Your task to perform on an android device: What's on the menu at Panera? Image 0: 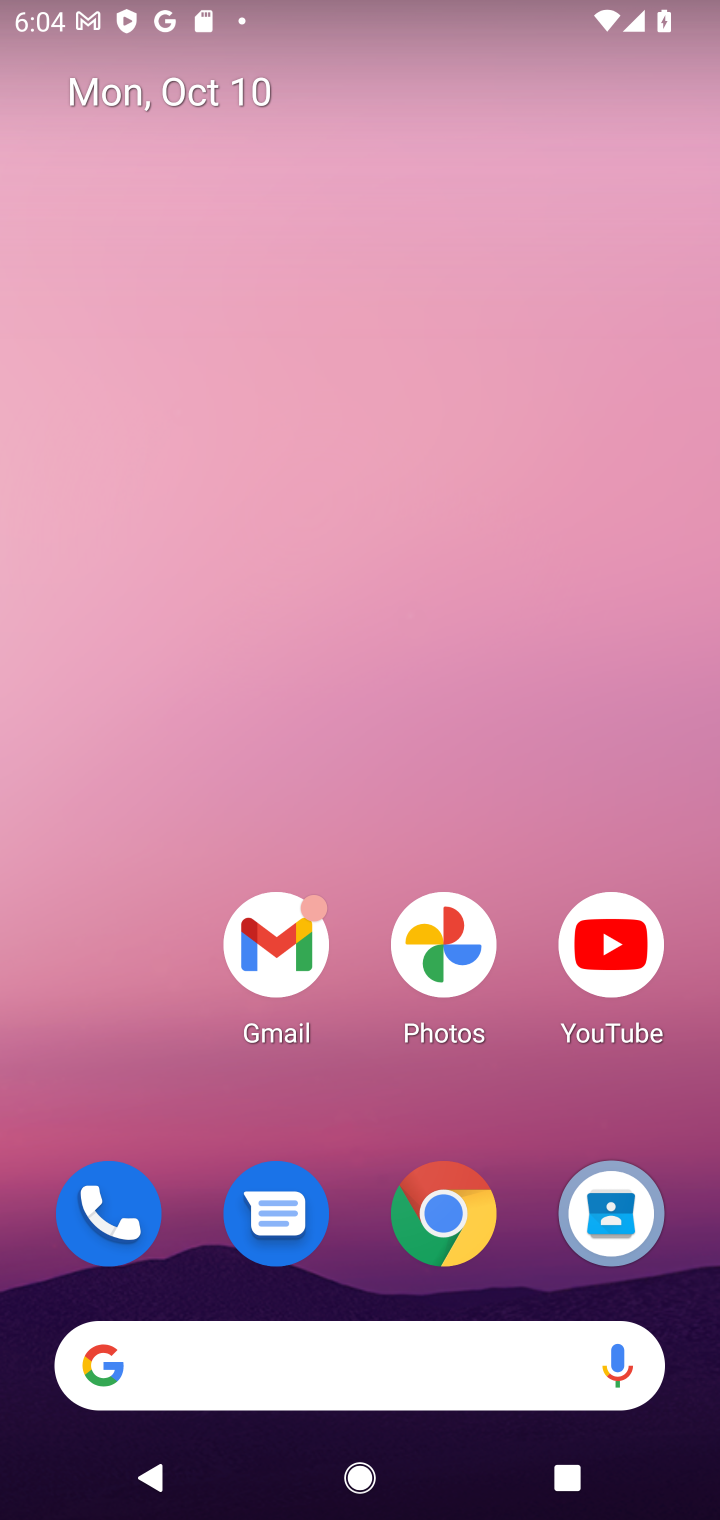
Step 0: click (379, 1347)
Your task to perform on an android device: What's on the menu at Panera? Image 1: 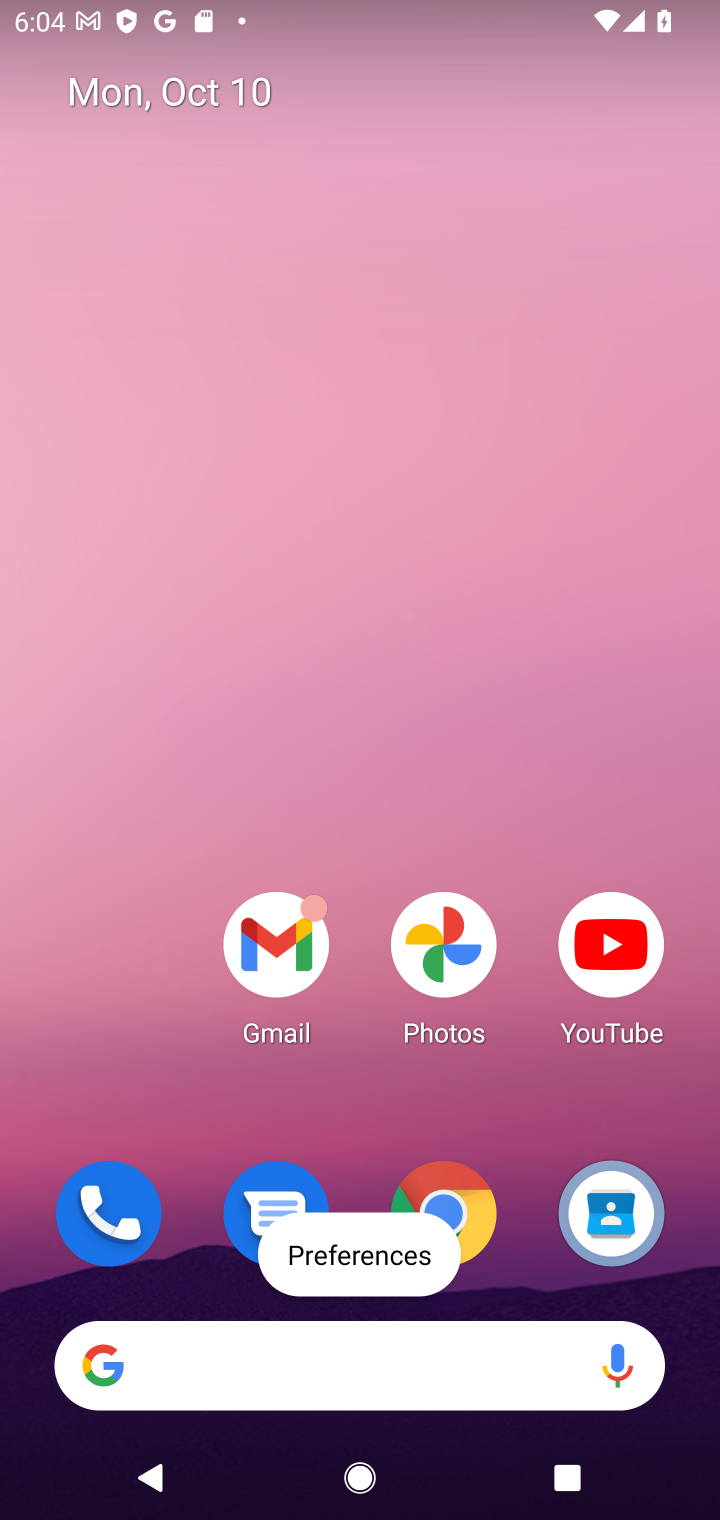
Step 1: click (273, 1382)
Your task to perform on an android device: What's on the menu at Panera? Image 2: 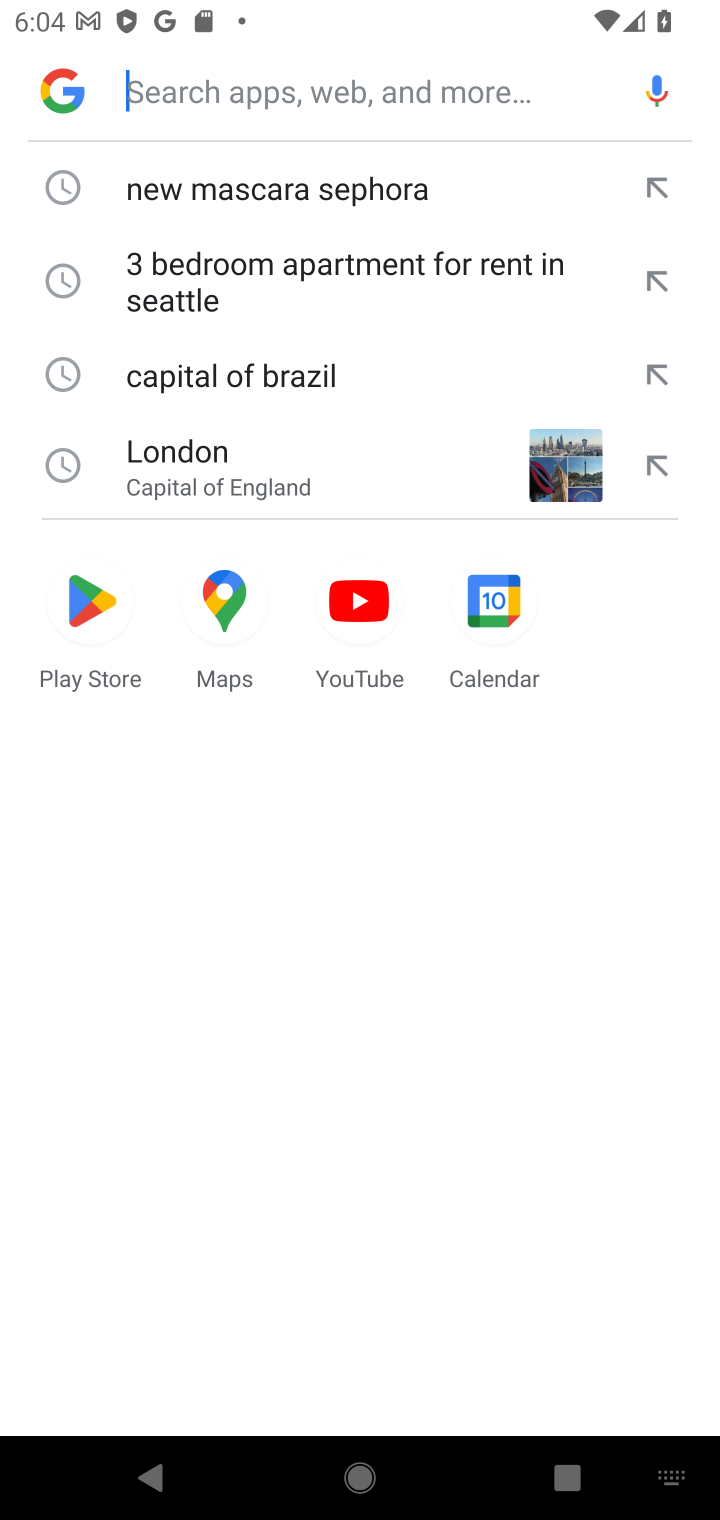
Step 2: type "menu at Panera"
Your task to perform on an android device: What's on the menu at Panera? Image 3: 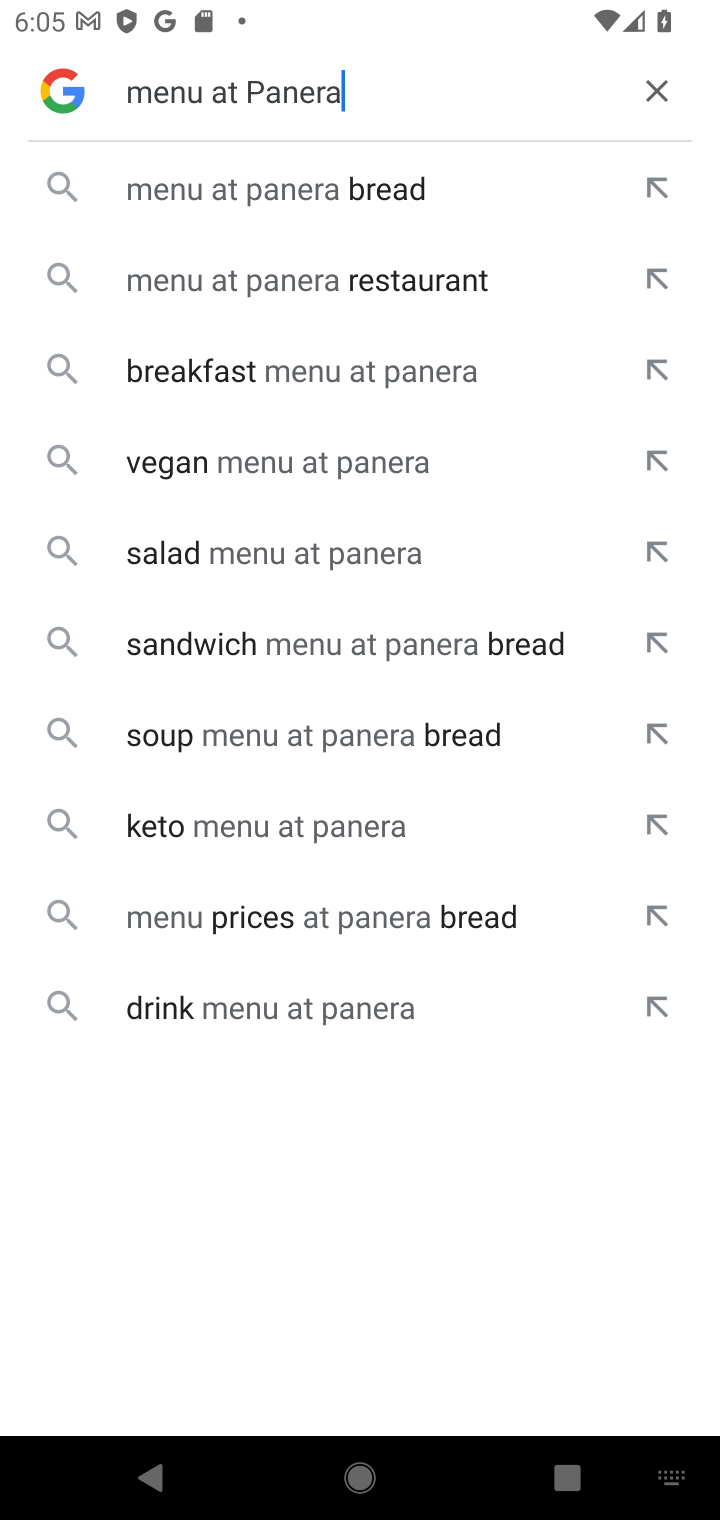
Step 3: click (382, 568)
Your task to perform on an android device: What's on the menu at Panera? Image 4: 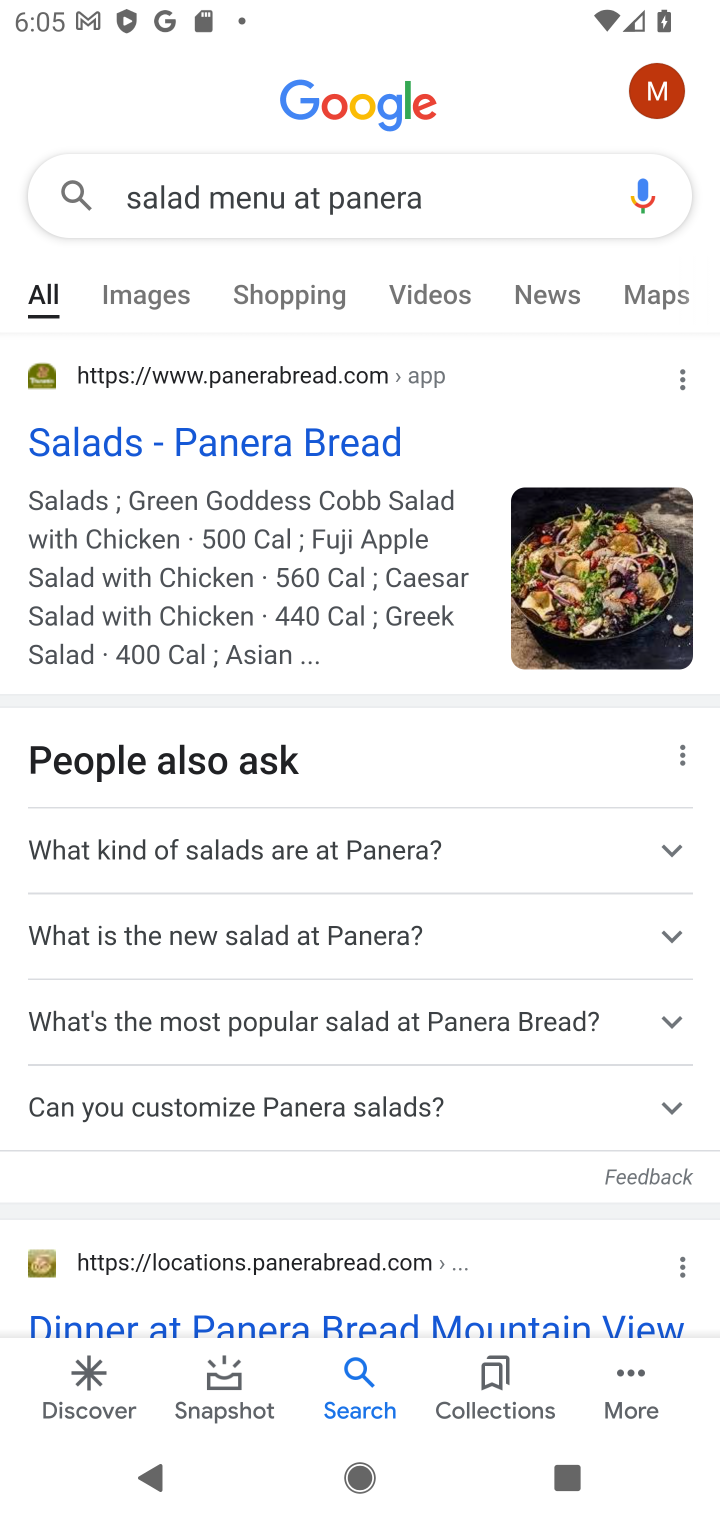
Step 4: click (361, 436)
Your task to perform on an android device: What's on the menu at Panera? Image 5: 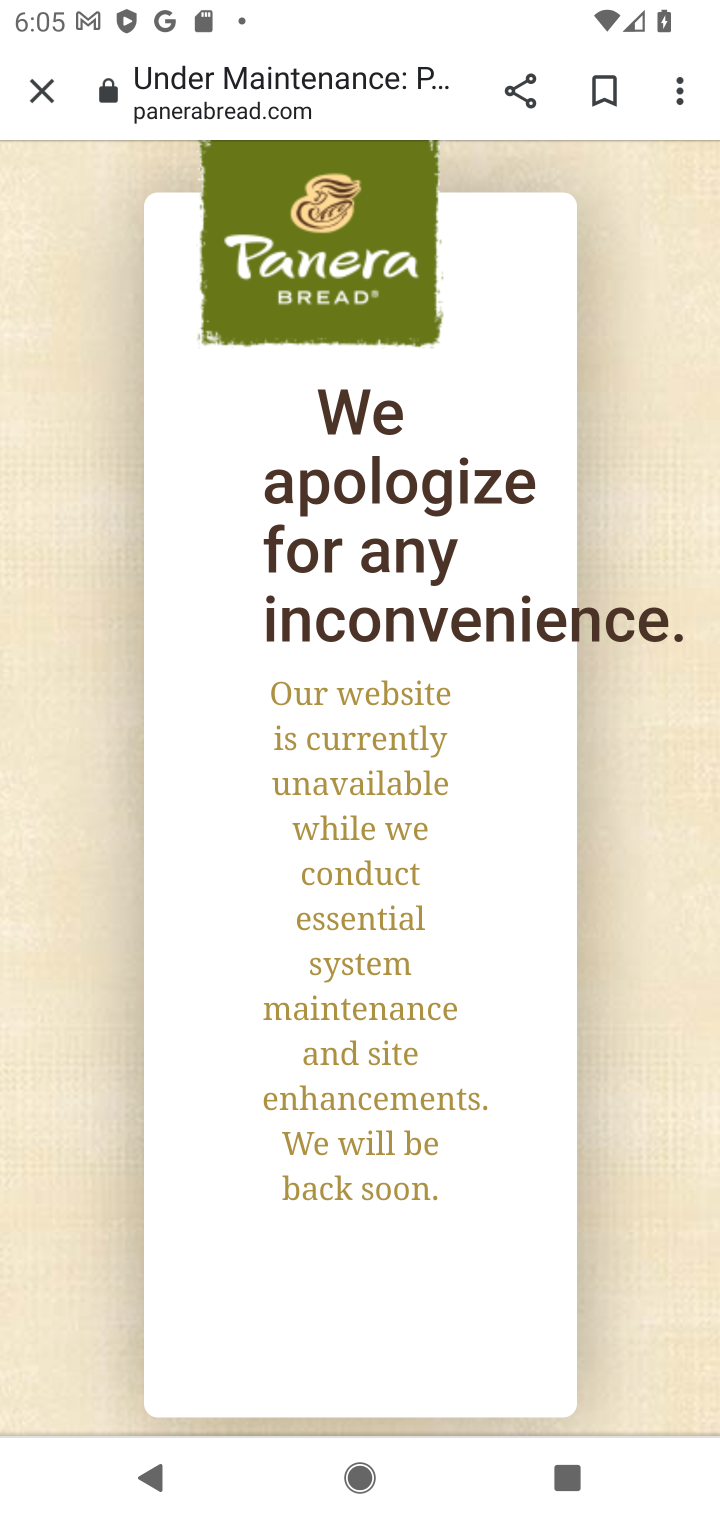
Step 5: task complete